Your task to perform on an android device: Go to Google Image 0: 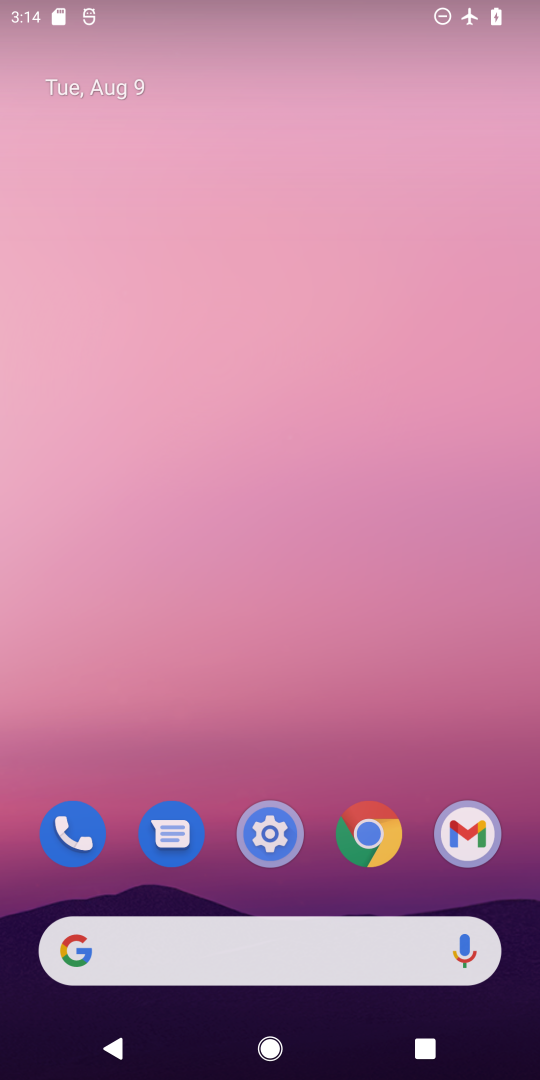
Step 0: press home button
Your task to perform on an android device: Go to Google Image 1: 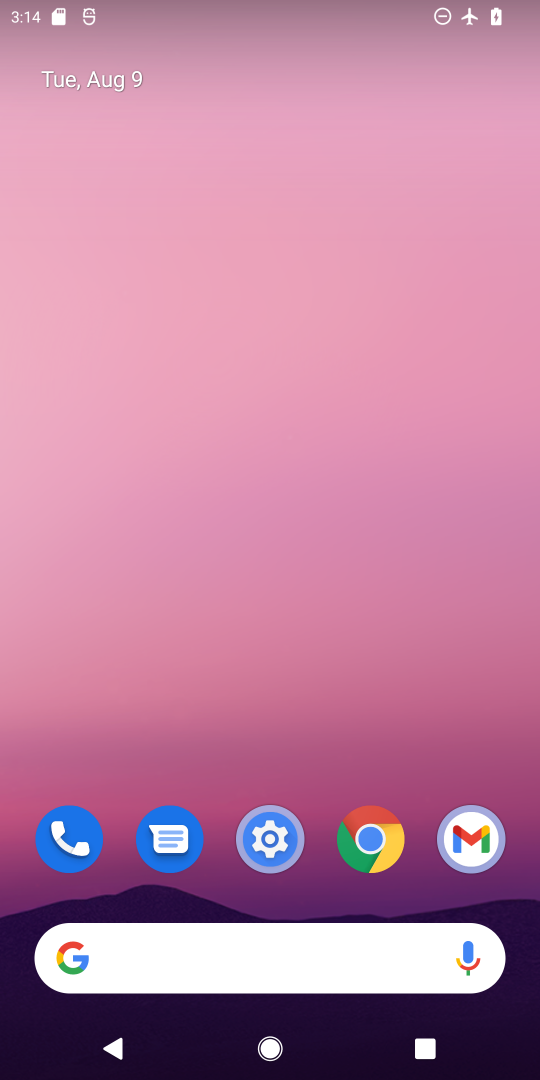
Step 1: drag from (285, 769) to (142, 20)
Your task to perform on an android device: Go to Google Image 2: 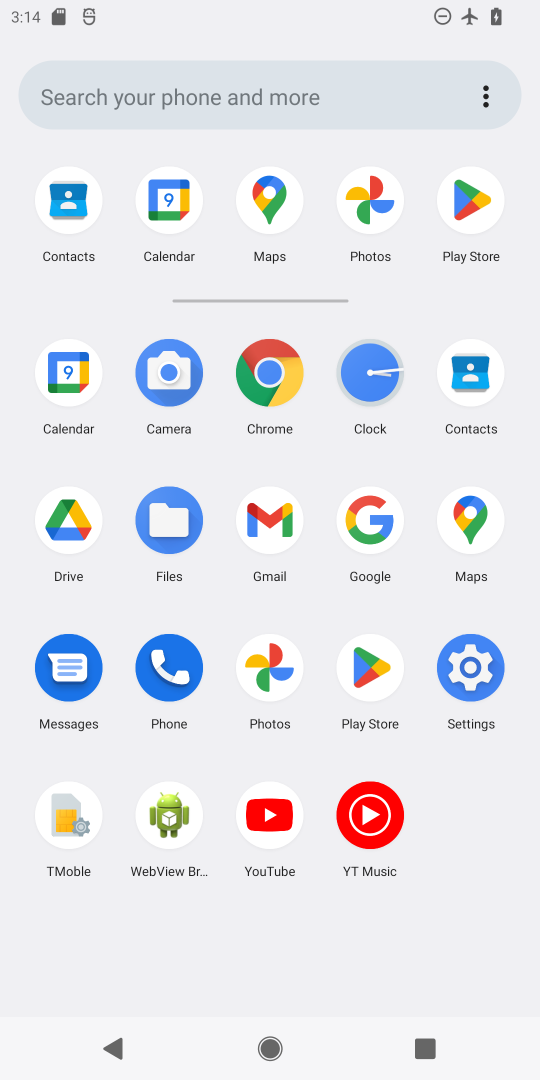
Step 2: click (358, 511)
Your task to perform on an android device: Go to Google Image 3: 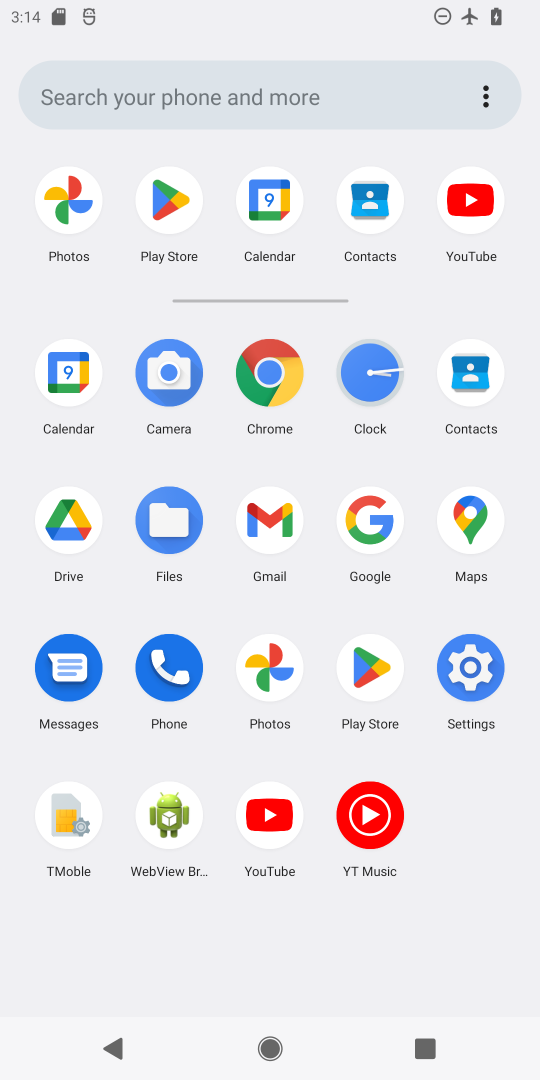
Step 3: click (373, 519)
Your task to perform on an android device: Go to Google Image 4: 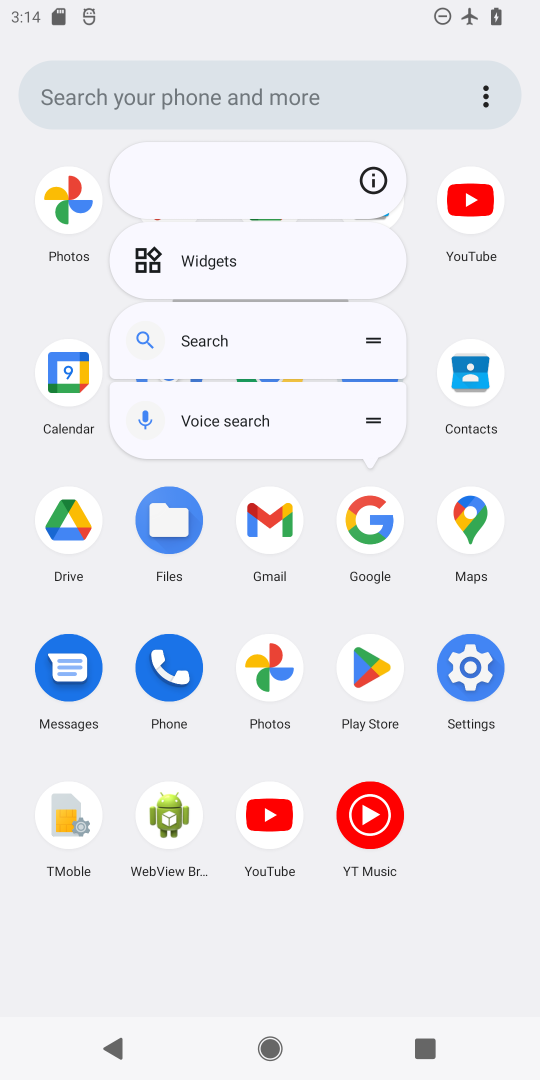
Step 4: click (378, 524)
Your task to perform on an android device: Go to Google Image 5: 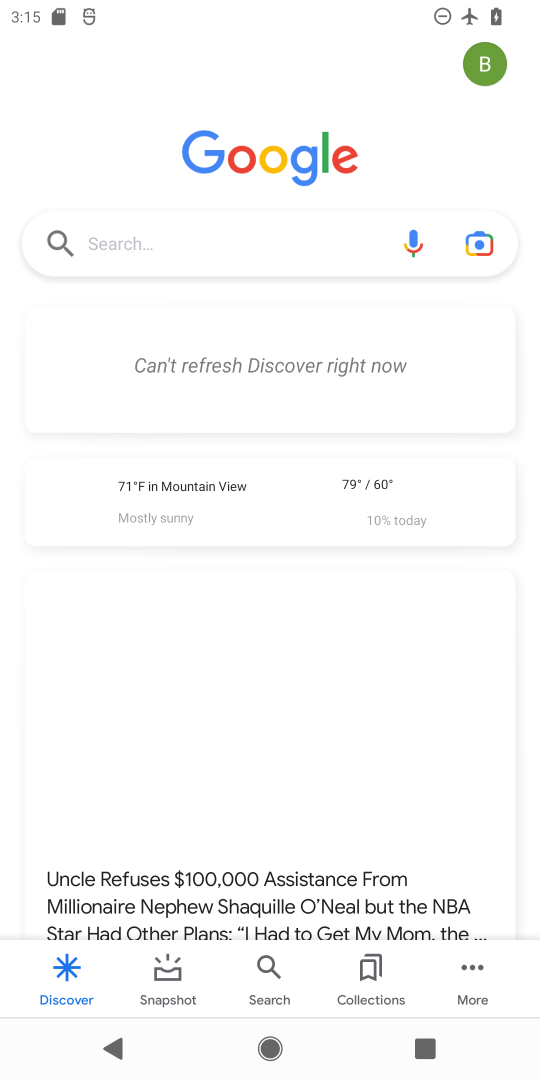
Step 5: task complete